Your task to perform on an android device: snooze an email in the gmail app Image 0: 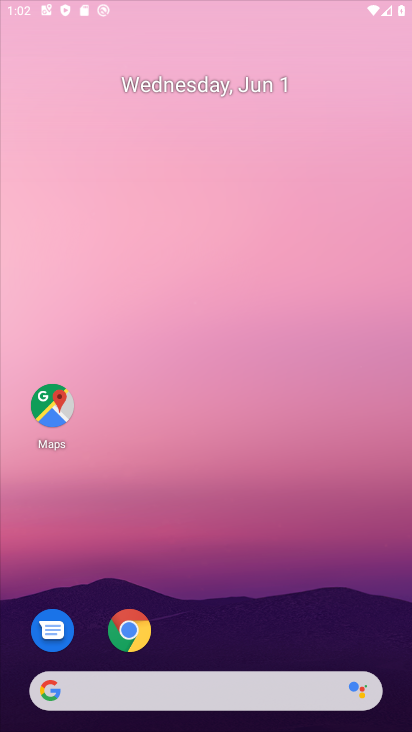
Step 0: press home button
Your task to perform on an android device: snooze an email in the gmail app Image 1: 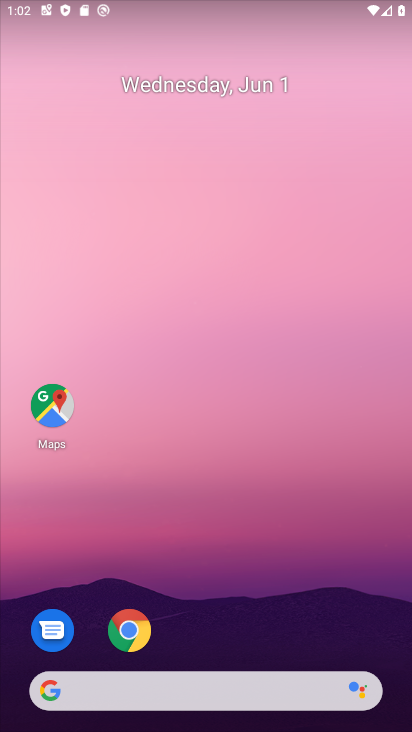
Step 1: drag from (228, 645) to (187, 154)
Your task to perform on an android device: snooze an email in the gmail app Image 2: 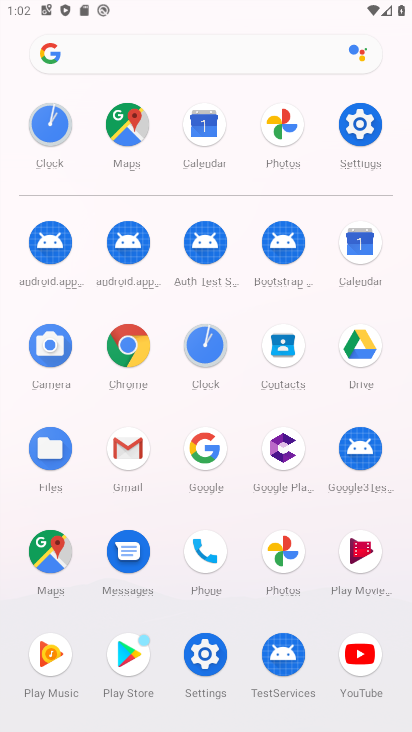
Step 2: click (127, 448)
Your task to perform on an android device: snooze an email in the gmail app Image 3: 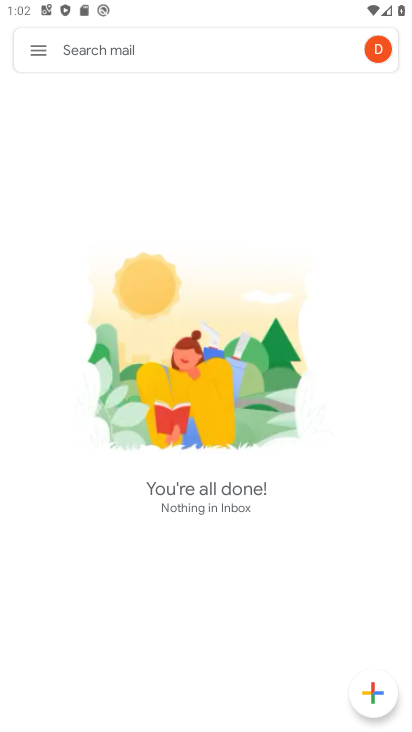
Step 3: click (37, 54)
Your task to perform on an android device: snooze an email in the gmail app Image 4: 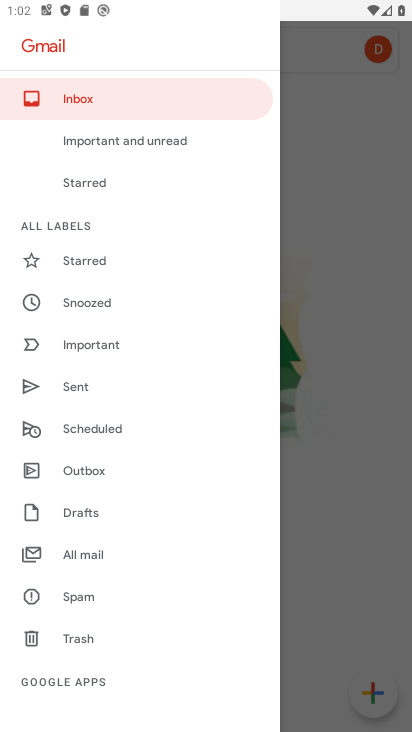
Step 4: click (85, 558)
Your task to perform on an android device: snooze an email in the gmail app Image 5: 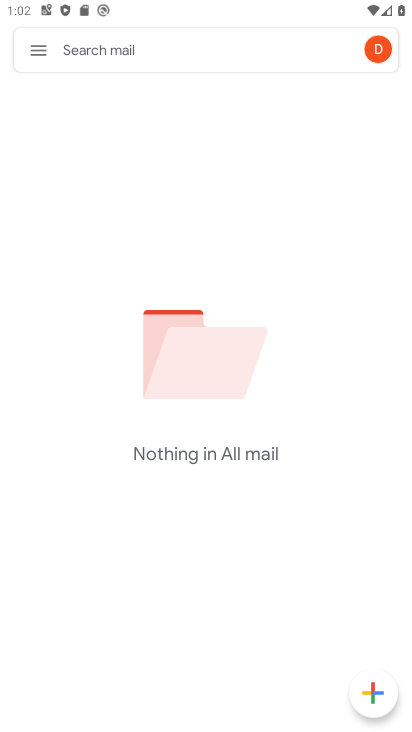
Step 5: task complete